Your task to perform on an android device: turn smart compose on in the gmail app Image 0: 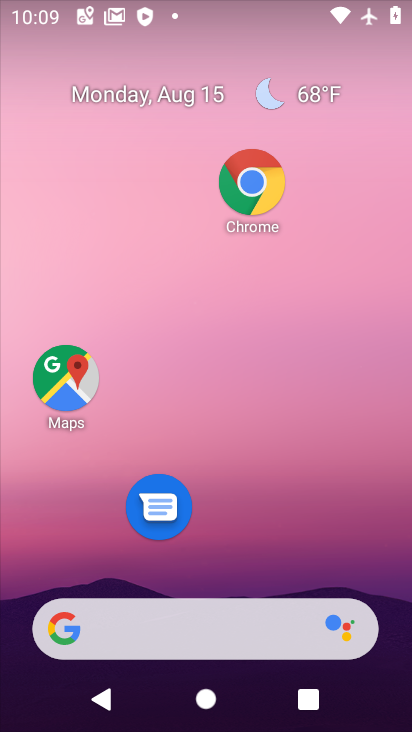
Step 0: drag from (244, 565) to (219, 89)
Your task to perform on an android device: turn smart compose on in the gmail app Image 1: 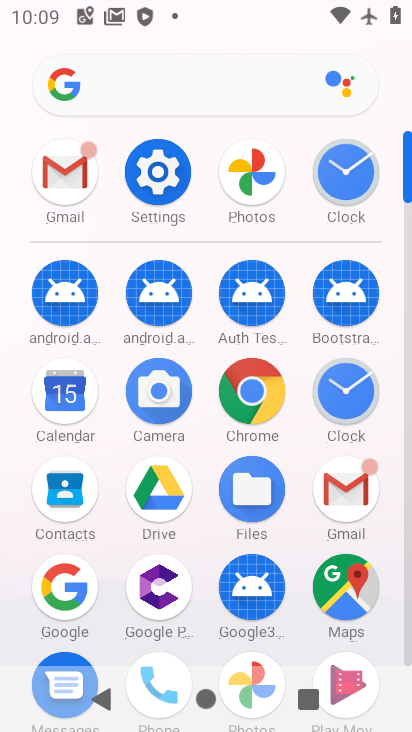
Step 1: click (368, 503)
Your task to perform on an android device: turn smart compose on in the gmail app Image 2: 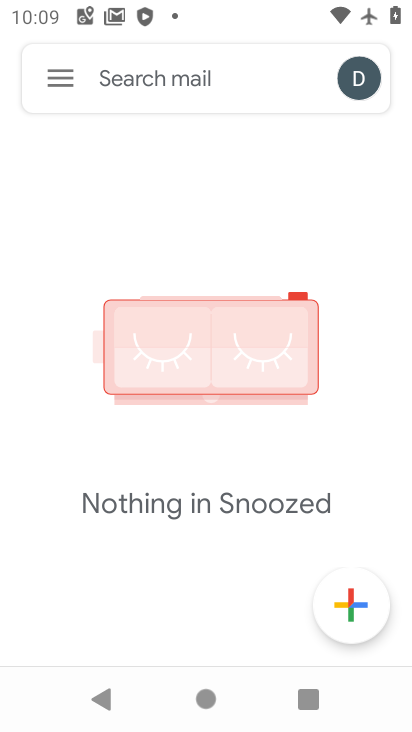
Step 2: click (68, 75)
Your task to perform on an android device: turn smart compose on in the gmail app Image 3: 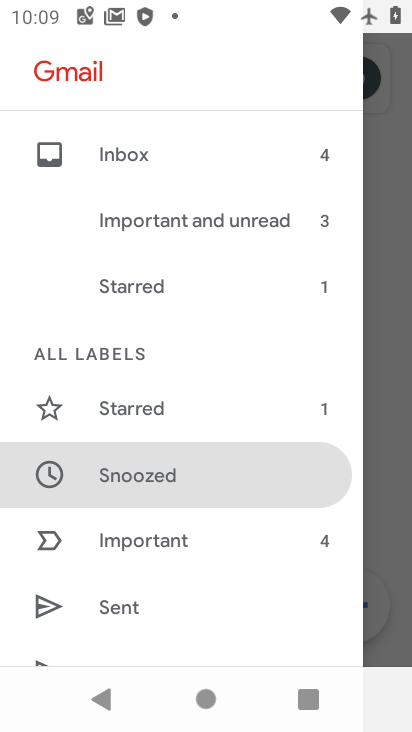
Step 3: task complete